Your task to perform on an android device: Open Google Image 0: 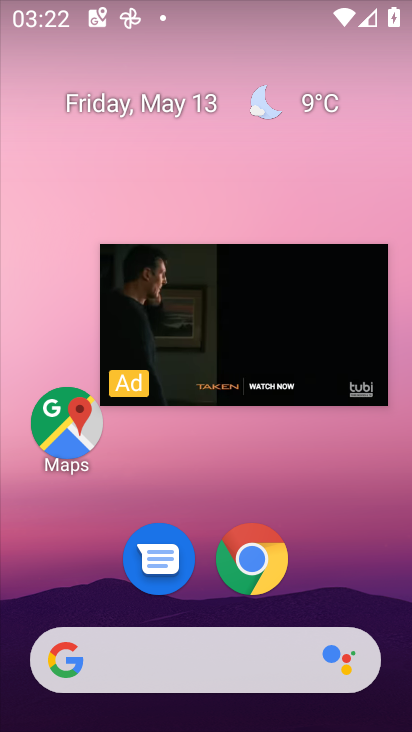
Step 0: drag from (399, 638) to (353, 302)
Your task to perform on an android device: Open Google Image 1: 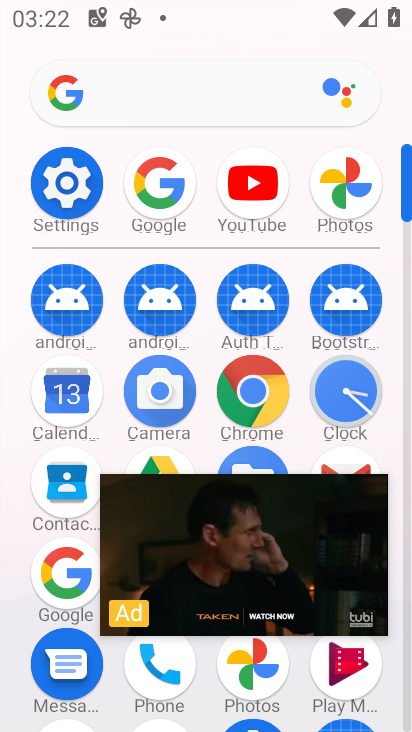
Step 1: click (71, 565)
Your task to perform on an android device: Open Google Image 2: 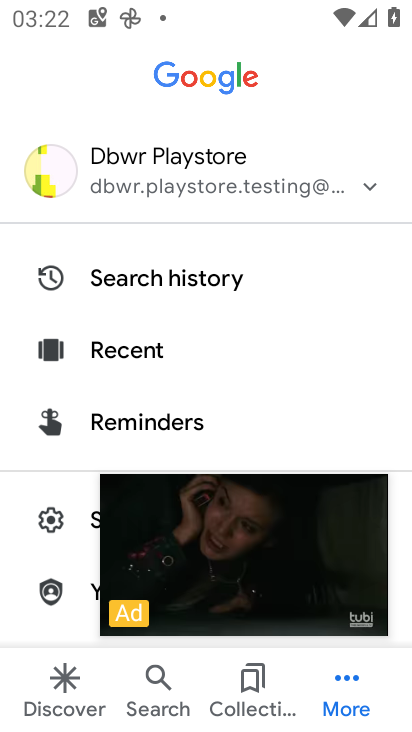
Step 2: press home button
Your task to perform on an android device: Open Google Image 3: 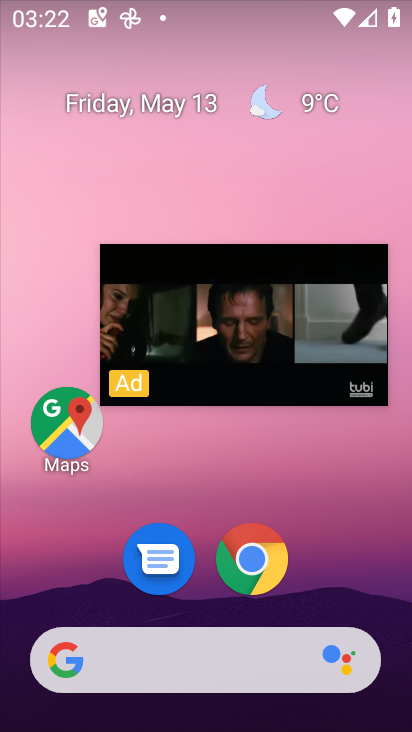
Step 3: drag from (401, 655) to (350, 292)
Your task to perform on an android device: Open Google Image 4: 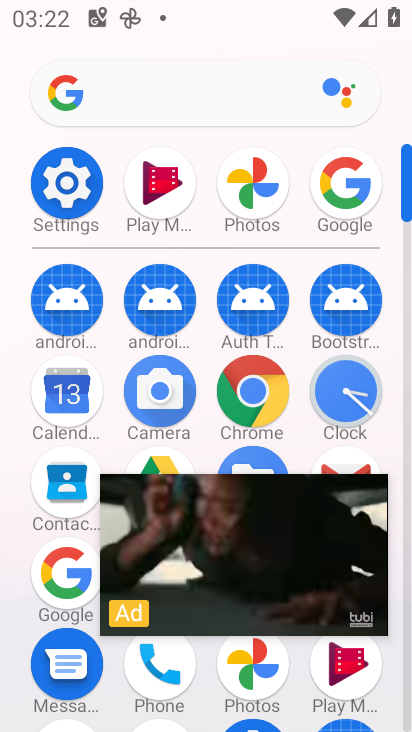
Step 4: click (74, 581)
Your task to perform on an android device: Open Google Image 5: 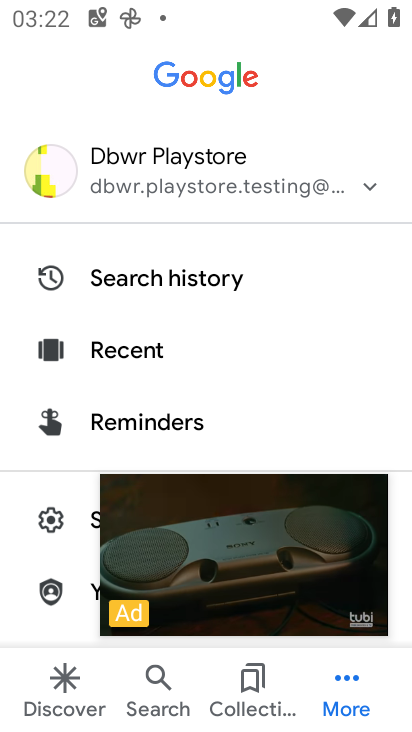
Step 5: task complete